Your task to perform on an android device: Play the last video I watched on Youtube Image 0: 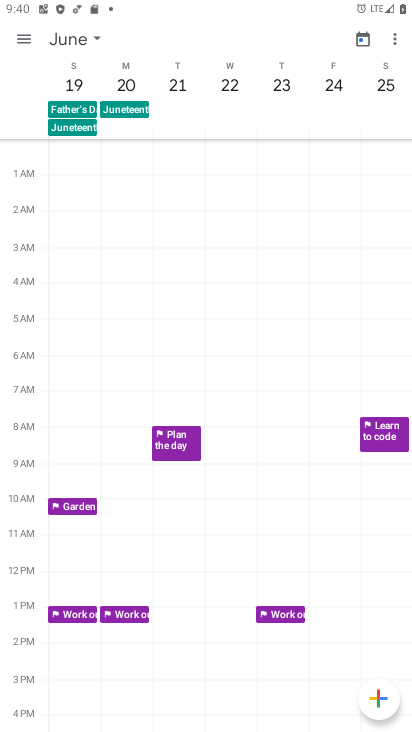
Step 0: press home button
Your task to perform on an android device: Play the last video I watched on Youtube Image 1: 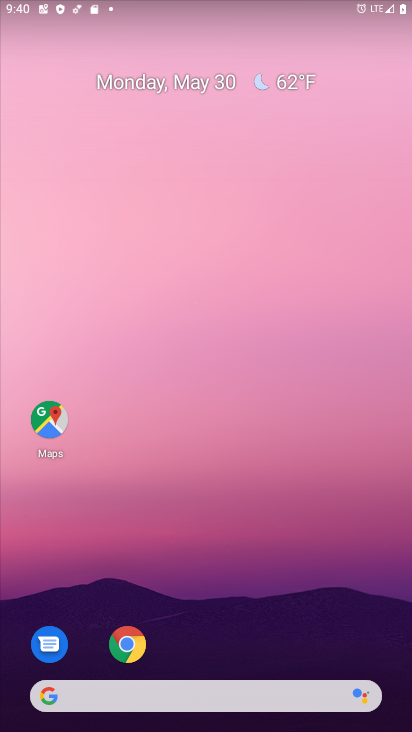
Step 1: drag from (383, 668) to (265, 116)
Your task to perform on an android device: Play the last video I watched on Youtube Image 2: 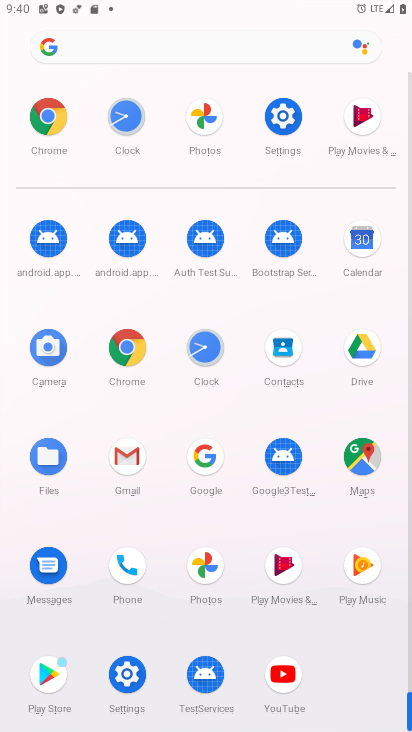
Step 2: click (283, 674)
Your task to perform on an android device: Play the last video I watched on Youtube Image 3: 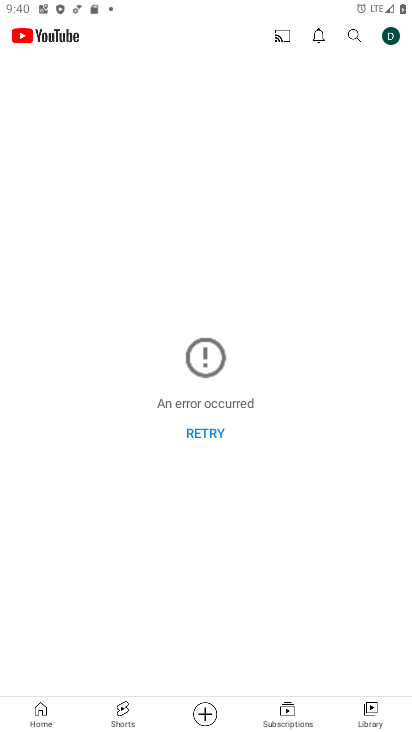
Step 3: click (370, 711)
Your task to perform on an android device: Play the last video I watched on Youtube Image 4: 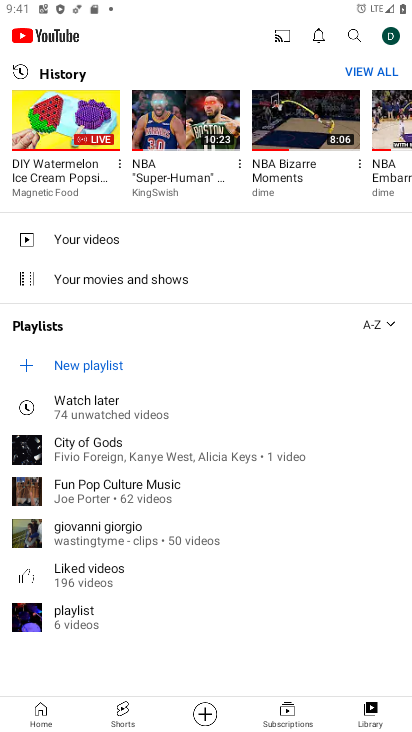
Step 4: click (74, 123)
Your task to perform on an android device: Play the last video I watched on Youtube Image 5: 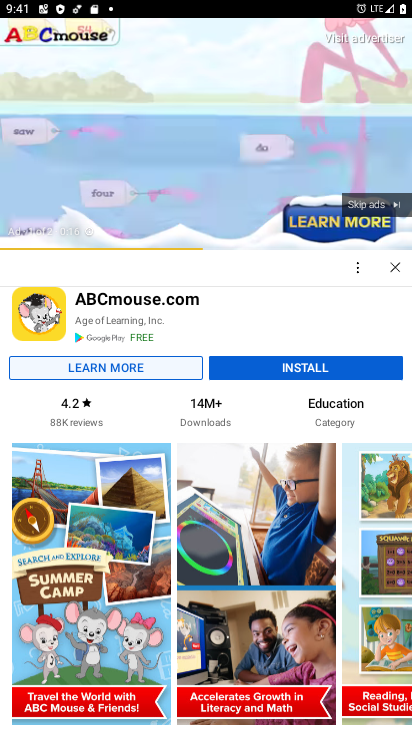
Step 5: click (378, 208)
Your task to perform on an android device: Play the last video I watched on Youtube Image 6: 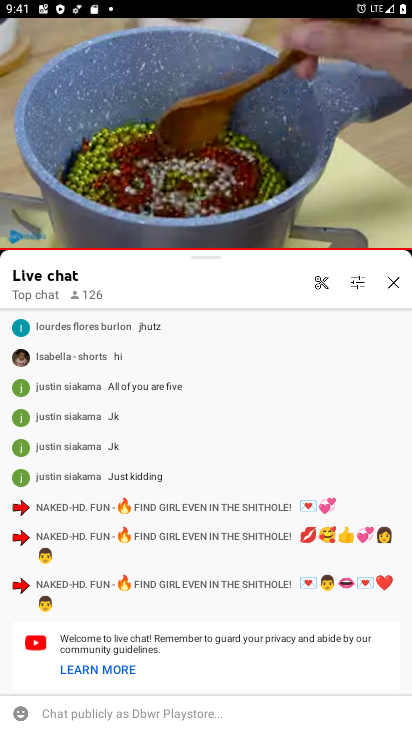
Step 6: click (186, 128)
Your task to perform on an android device: Play the last video I watched on Youtube Image 7: 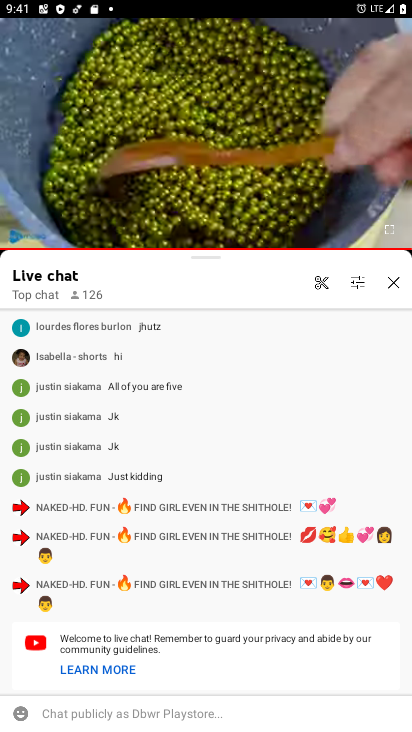
Step 7: click (186, 128)
Your task to perform on an android device: Play the last video I watched on Youtube Image 8: 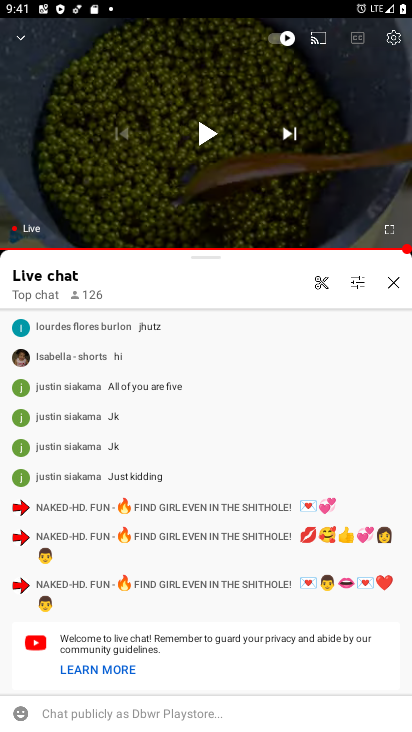
Step 8: task complete